Your task to perform on an android device: Go to accessibility settings Image 0: 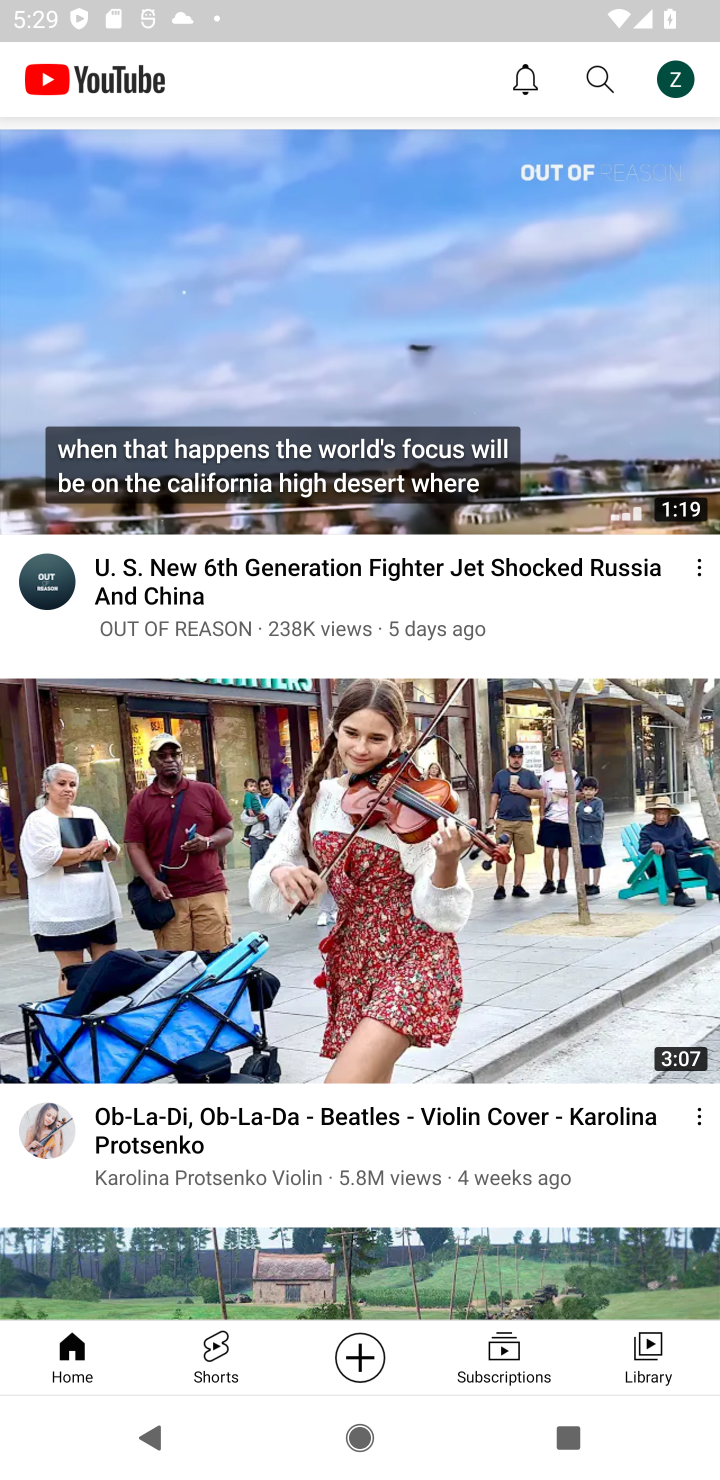
Step 0: press home button
Your task to perform on an android device: Go to accessibility settings Image 1: 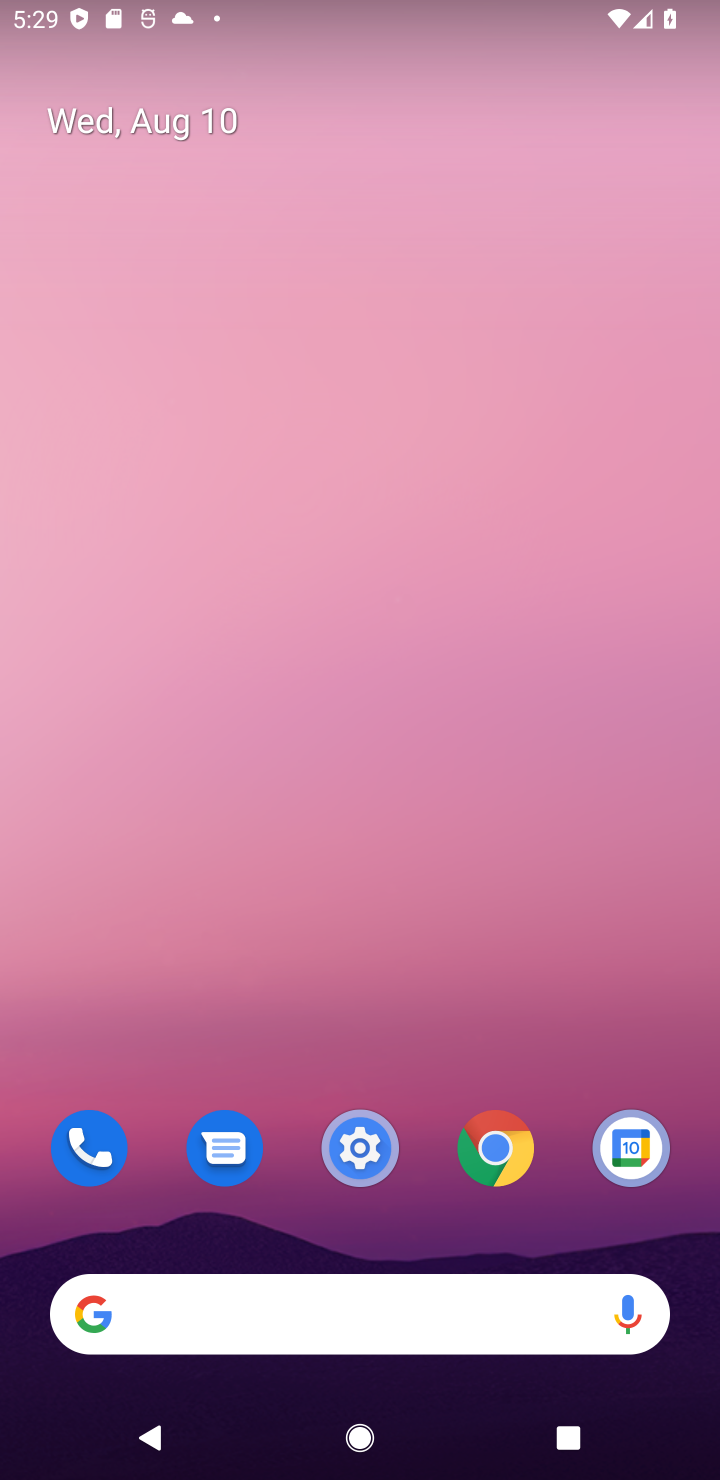
Step 1: click (332, 1138)
Your task to perform on an android device: Go to accessibility settings Image 2: 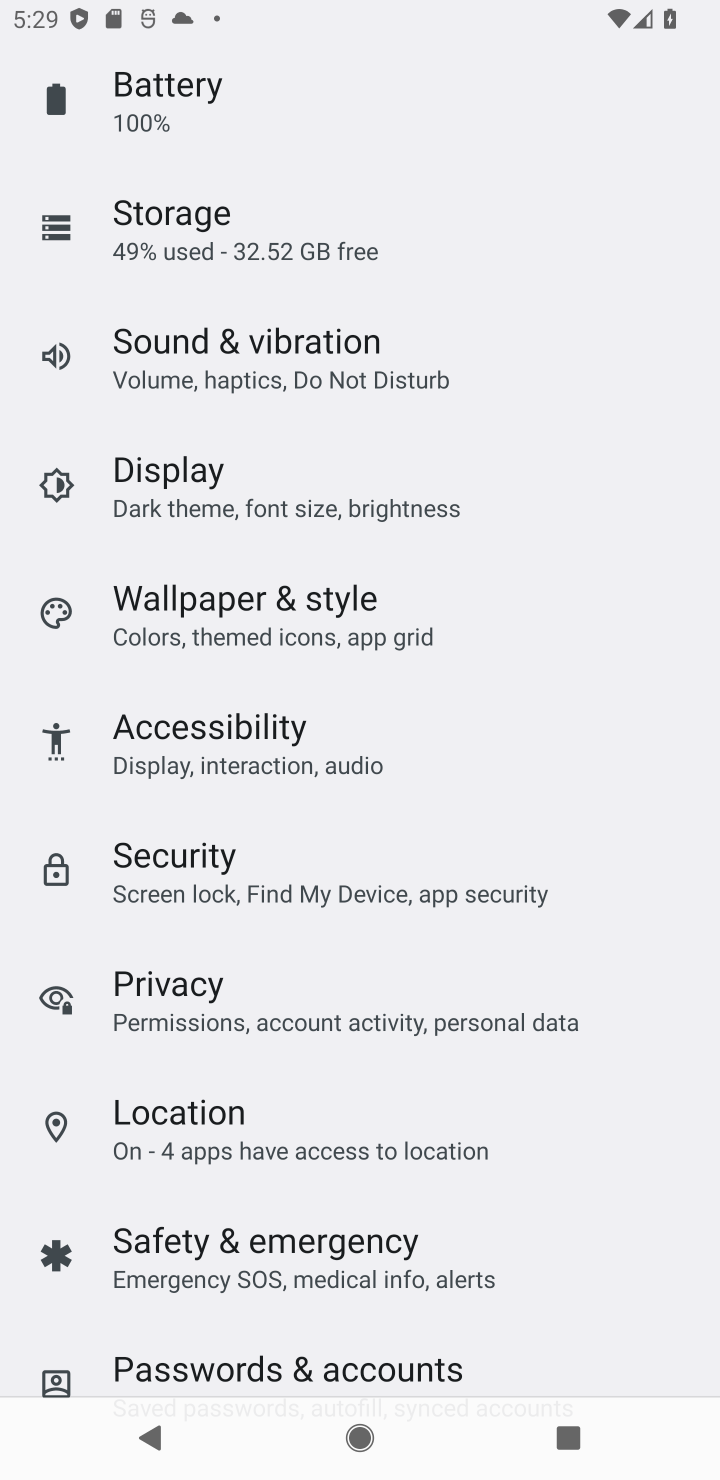
Step 2: click (320, 740)
Your task to perform on an android device: Go to accessibility settings Image 3: 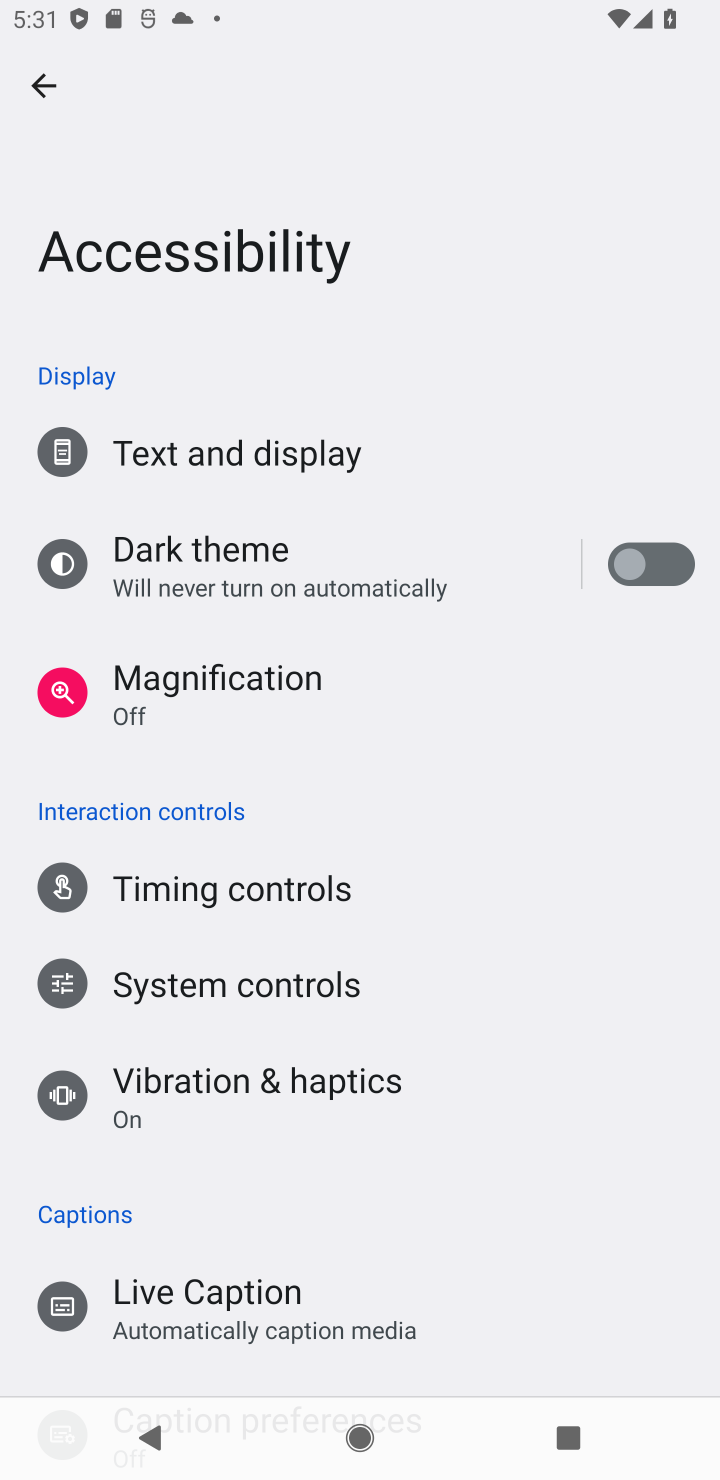
Step 3: task complete